Your task to perform on an android device: turn off improve location accuracy Image 0: 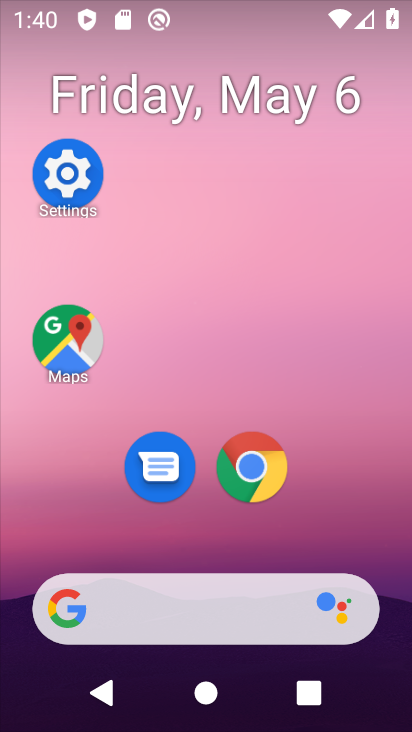
Step 0: click (63, 175)
Your task to perform on an android device: turn off improve location accuracy Image 1: 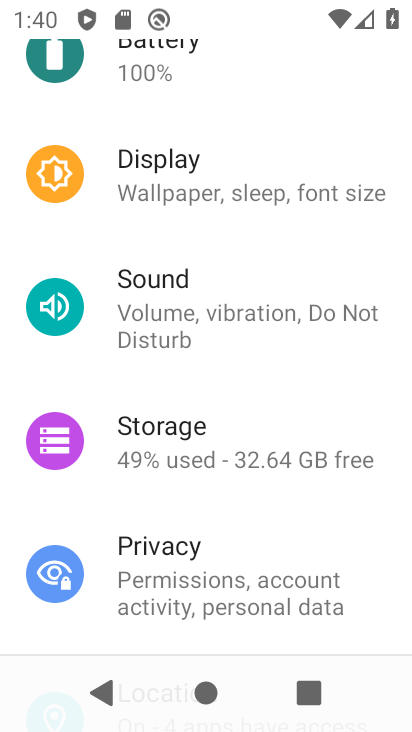
Step 1: drag from (265, 520) to (217, 138)
Your task to perform on an android device: turn off improve location accuracy Image 2: 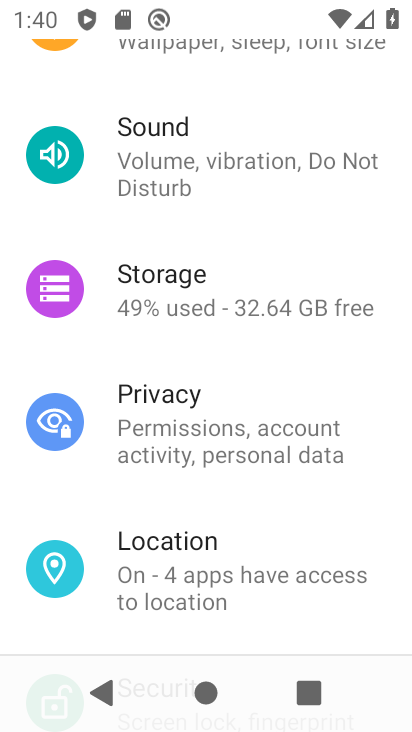
Step 2: drag from (264, 519) to (214, 285)
Your task to perform on an android device: turn off improve location accuracy Image 3: 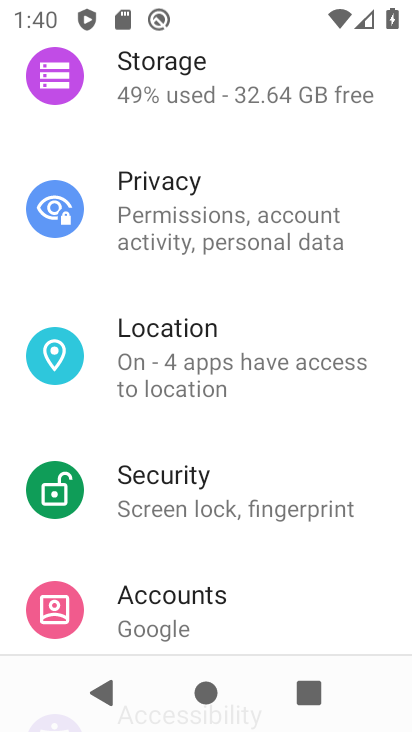
Step 3: click (231, 335)
Your task to perform on an android device: turn off improve location accuracy Image 4: 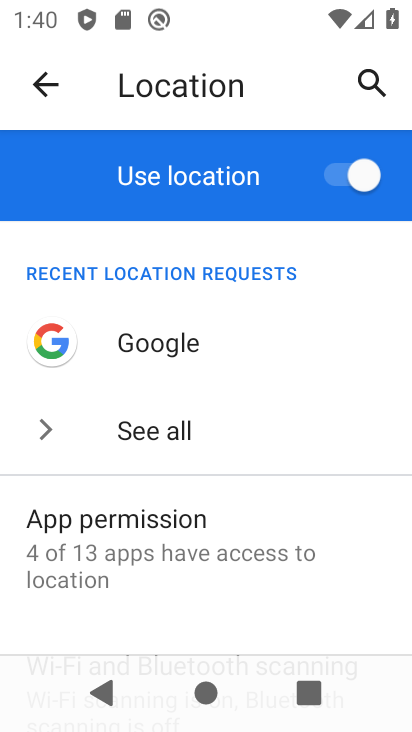
Step 4: drag from (213, 509) to (241, 41)
Your task to perform on an android device: turn off improve location accuracy Image 5: 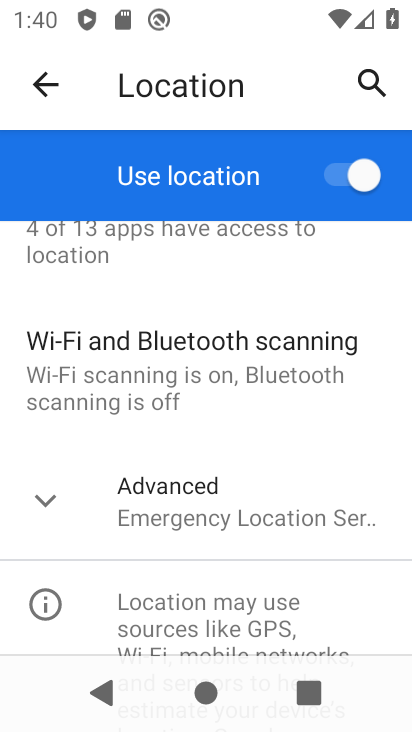
Step 5: click (222, 522)
Your task to perform on an android device: turn off improve location accuracy Image 6: 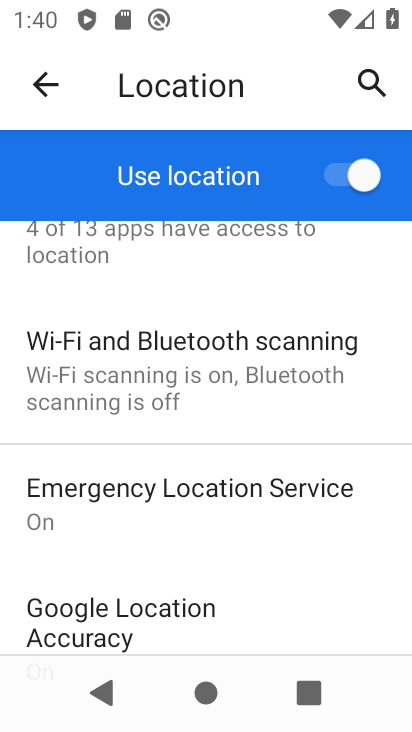
Step 6: drag from (228, 510) to (227, 92)
Your task to perform on an android device: turn off improve location accuracy Image 7: 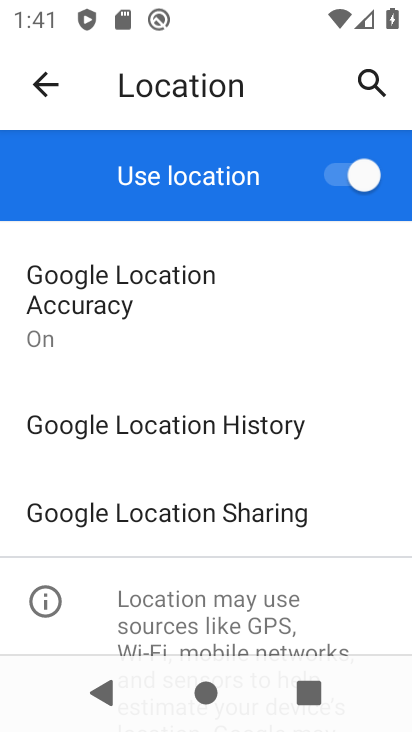
Step 7: click (203, 288)
Your task to perform on an android device: turn off improve location accuracy Image 8: 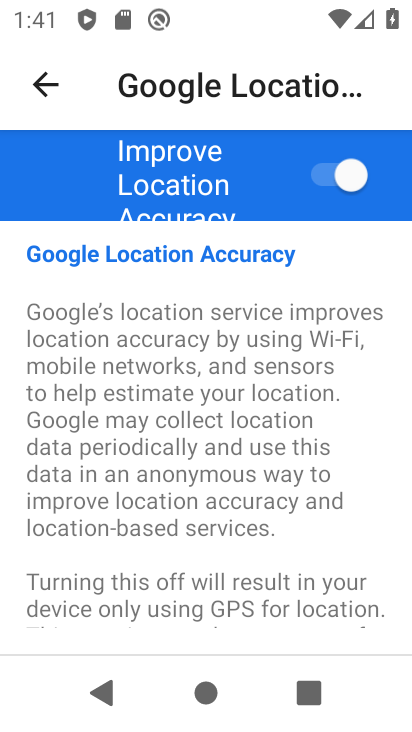
Step 8: click (341, 174)
Your task to perform on an android device: turn off improve location accuracy Image 9: 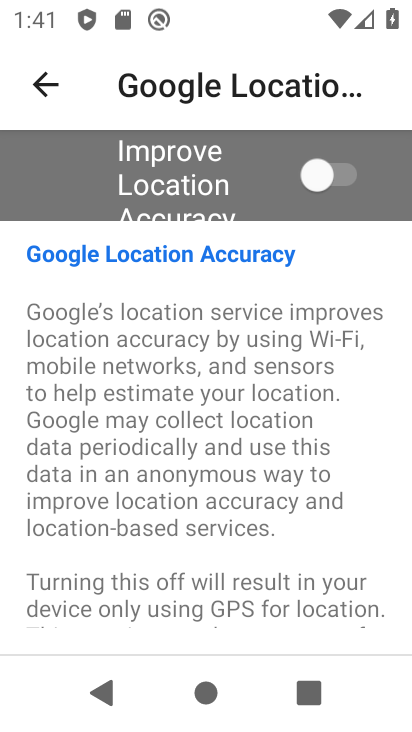
Step 9: task complete